Your task to perform on an android device: Open Yahoo.com Image 0: 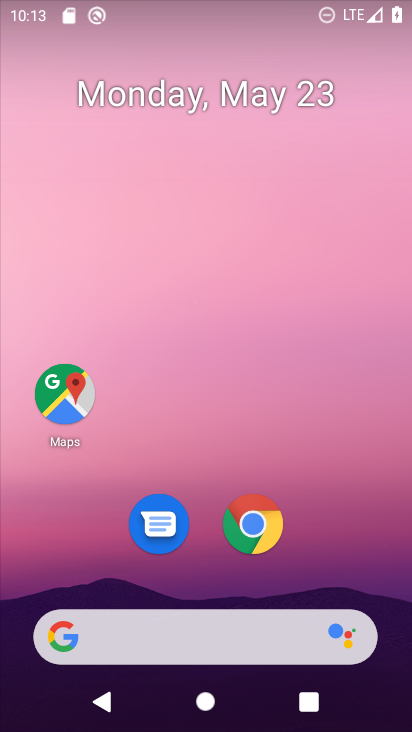
Step 0: click (254, 647)
Your task to perform on an android device: Open Yahoo.com Image 1: 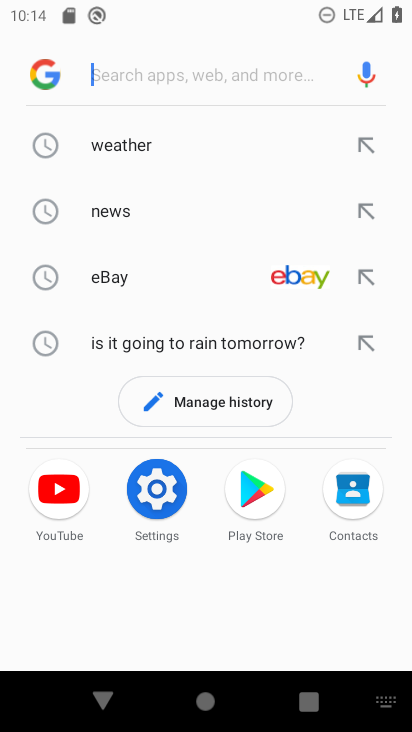
Step 1: type "yahhoo.com"
Your task to perform on an android device: Open Yahoo.com Image 2: 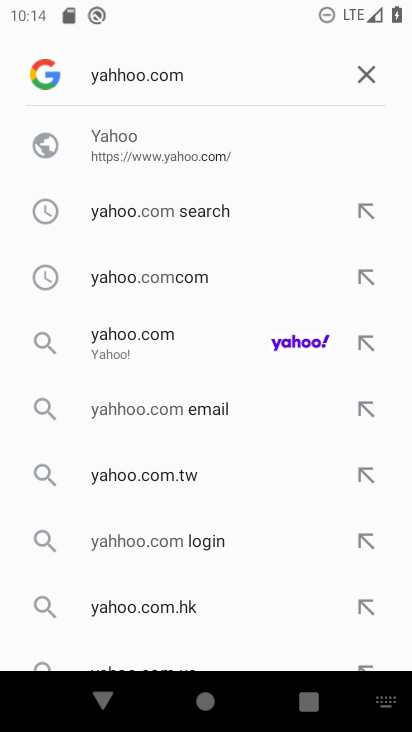
Step 2: click (144, 341)
Your task to perform on an android device: Open Yahoo.com Image 3: 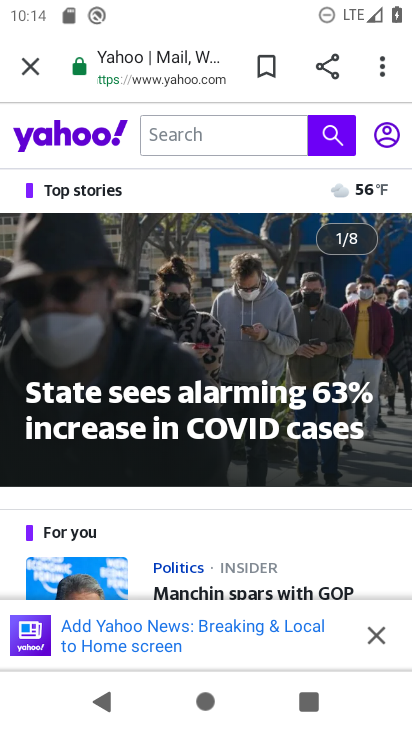
Step 3: task complete